Your task to perform on an android device: turn on airplane mode Image 0: 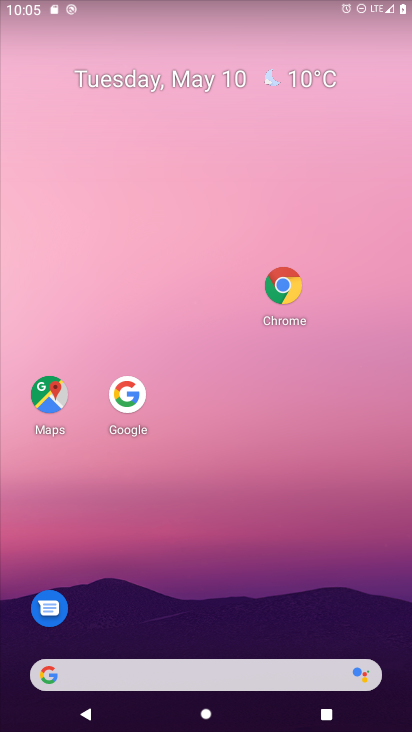
Step 0: drag from (162, 677) to (329, 74)
Your task to perform on an android device: turn on airplane mode Image 1: 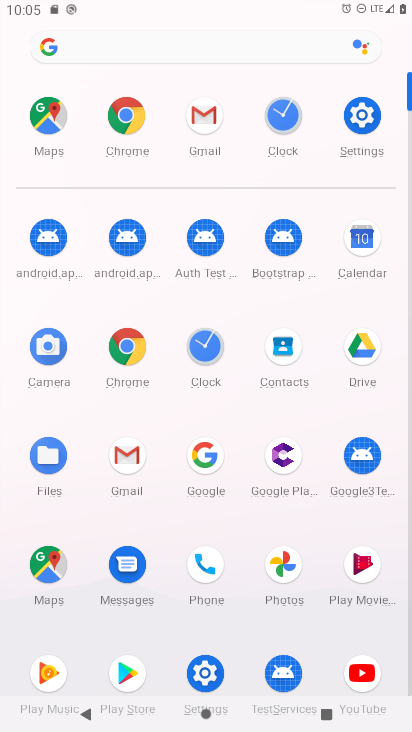
Step 1: click (358, 121)
Your task to perform on an android device: turn on airplane mode Image 2: 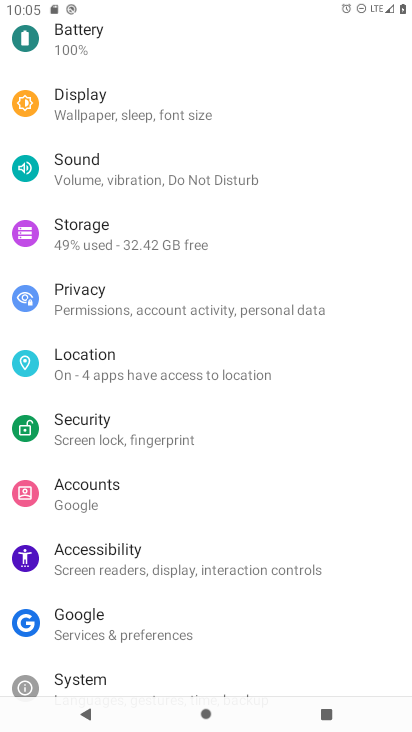
Step 2: drag from (230, 60) to (200, 403)
Your task to perform on an android device: turn on airplane mode Image 3: 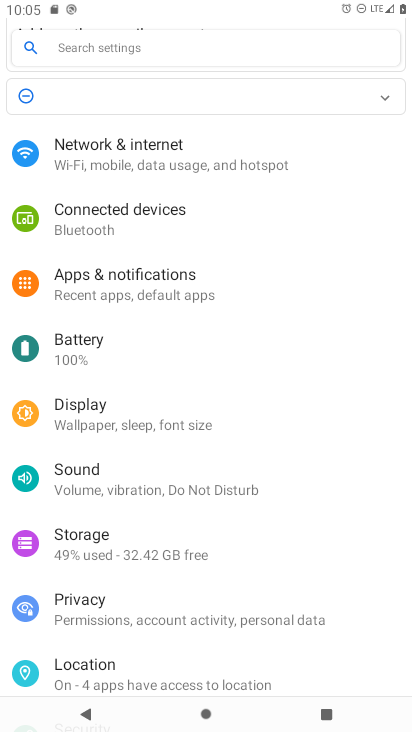
Step 3: click (176, 153)
Your task to perform on an android device: turn on airplane mode Image 4: 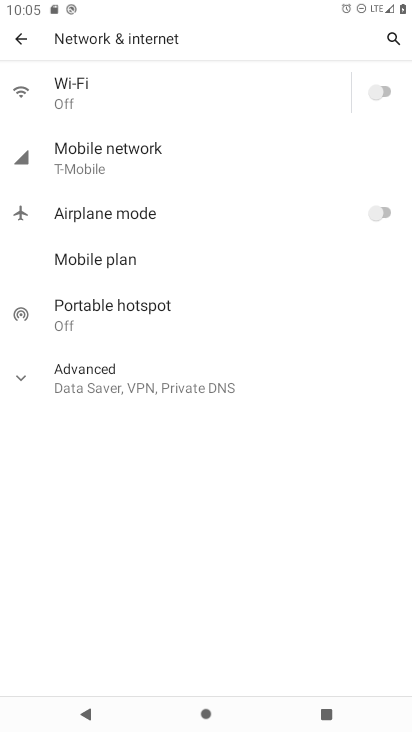
Step 4: click (386, 213)
Your task to perform on an android device: turn on airplane mode Image 5: 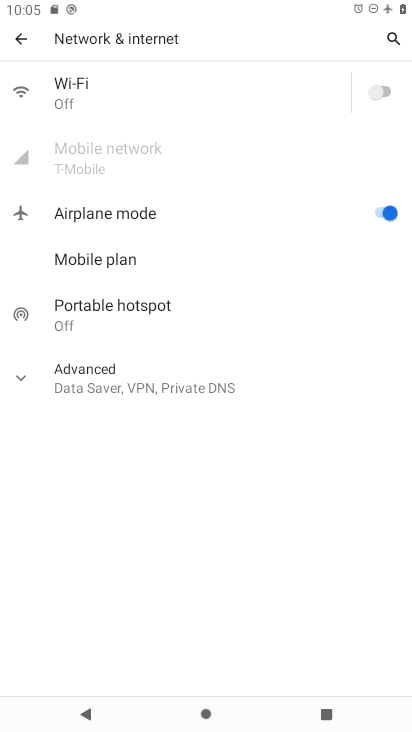
Step 5: task complete